Your task to perform on an android device: find which apps use the phone's location Image 0: 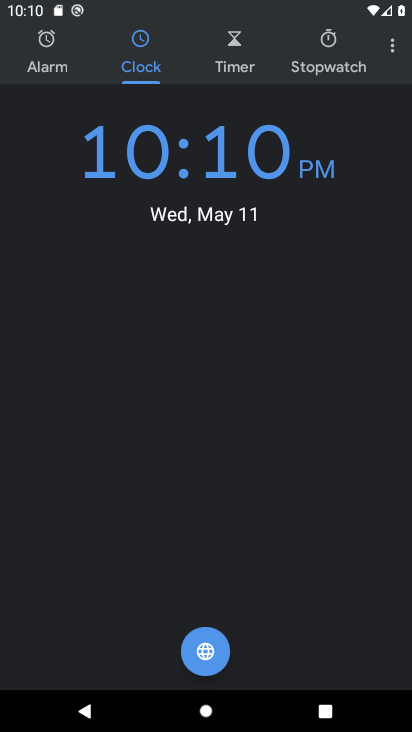
Step 0: press home button
Your task to perform on an android device: find which apps use the phone's location Image 1: 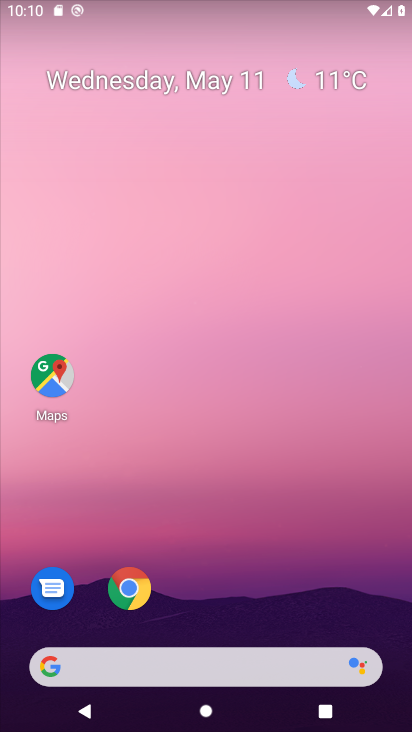
Step 1: drag from (240, 596) to (249, 109)
Your task to perform on an android device: find which apps use the phone's location Image 2: 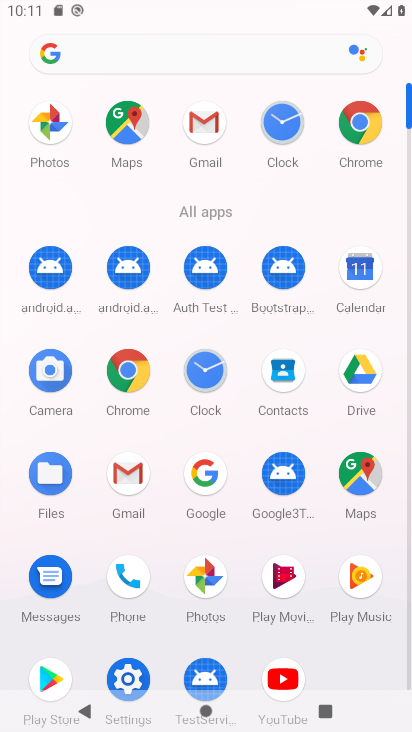
Step 2: click (126, 672)
Your task to perform on an android device: find which apps use the phone's location Image 3: 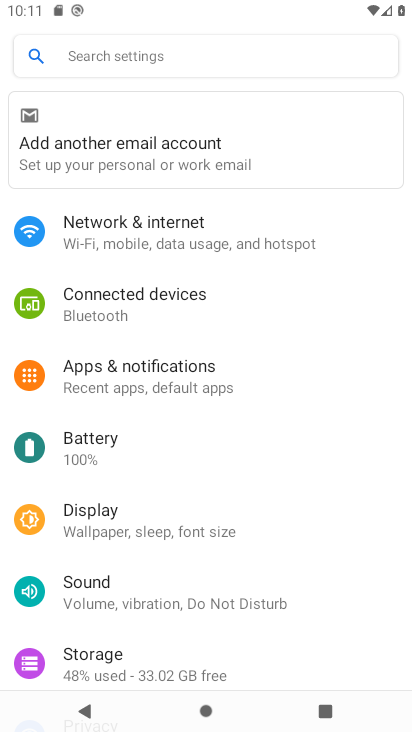
Step 3: drag from (183, 634) to (164, 215)
Your task to perform on an android device: find which apps use the phone's location Image 4: 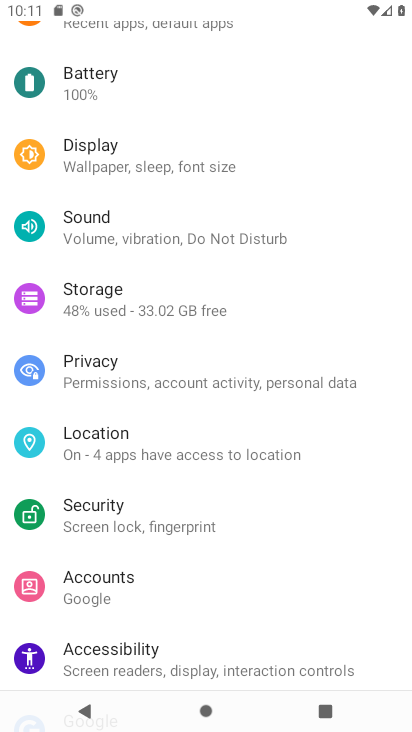
Step 4: click (132, 453)
Your task to perform on an android device: find which apps use the phone's location Image 5: 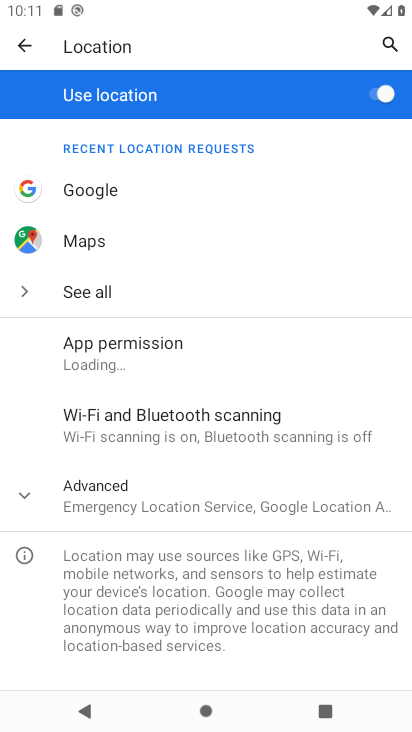
Step 5: click (118, 192)
Your task to perform on an android device: find which apps use the phone's location Image 6: 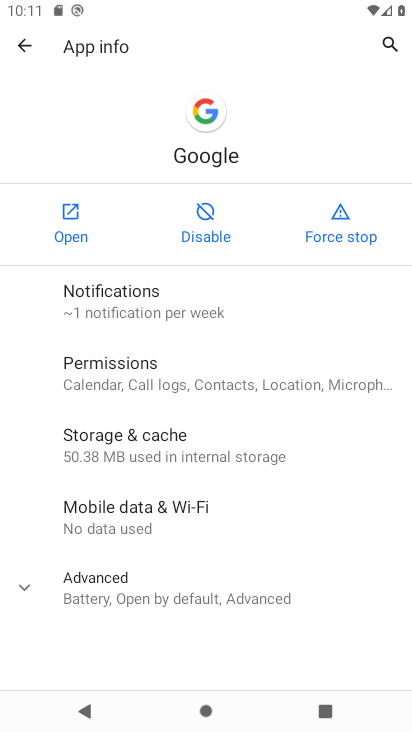
Step 6: click (163, 396)
Your task to perform on an android device: find which apps use the phone's location Image 7: 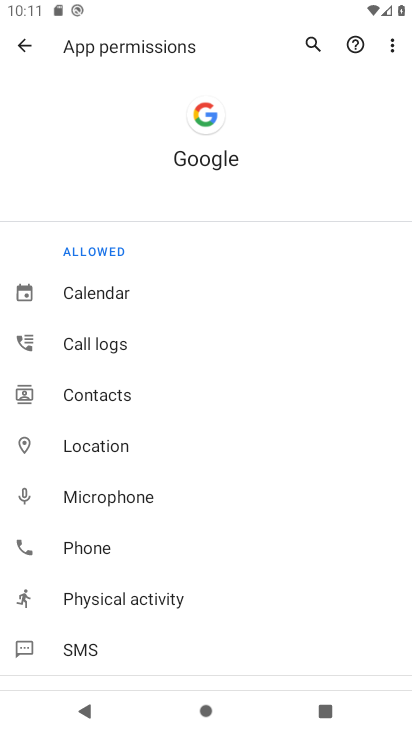
Step 7: click (124, 447)
Your task to perform on an android device: find which apps use the phone's location Image 8: 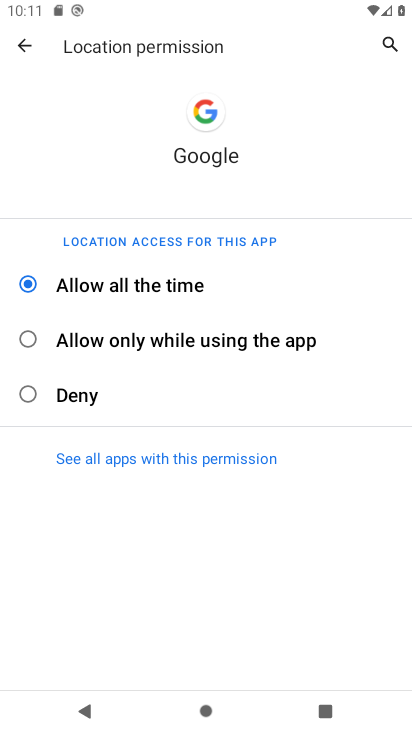
Step 8: task complete